Your task to perform on an android device: set the stopwatch Image 0: 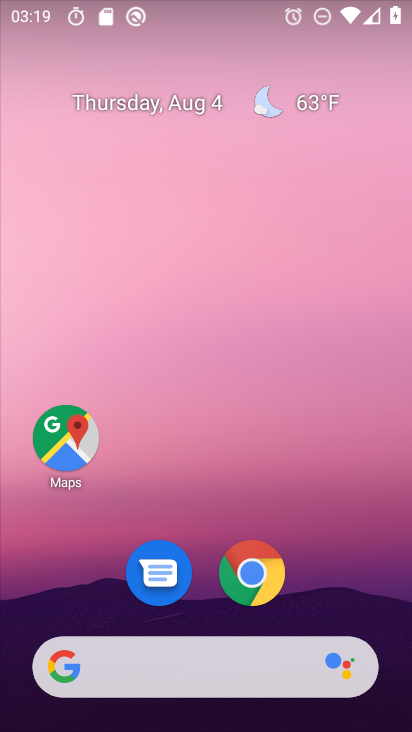
Step 0: drag from (328, 598) to (351, 75)
Your task to perform on an android device: set the stopwatch Image 1: 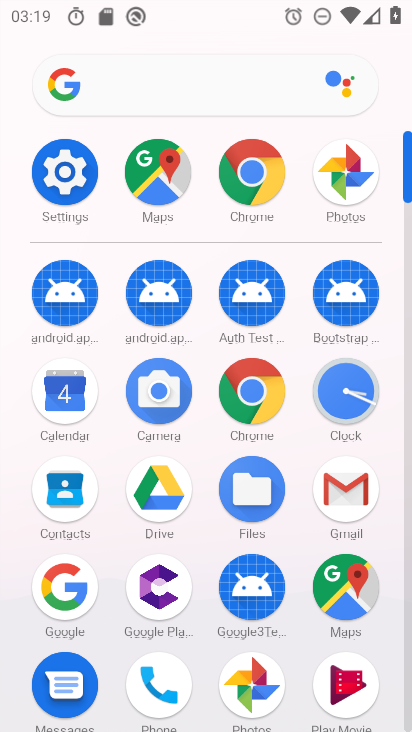
Step 1: click (358, 387)
Your task to perform on an android device: set the stopwatch Image 2: 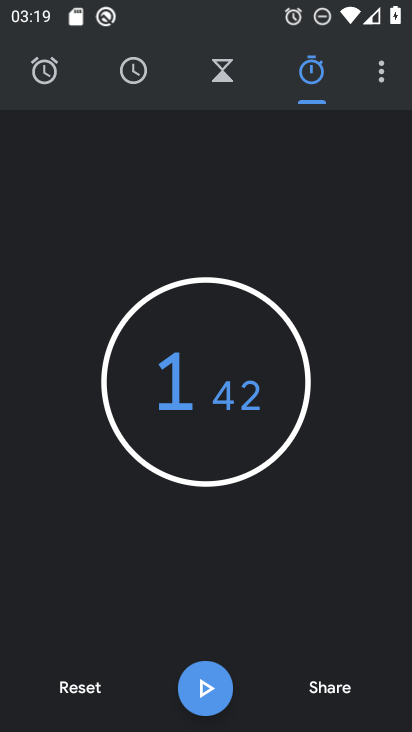
Step 2: click (305, 72)
Your task to perform on an android device: set the stopwatch Image 3: 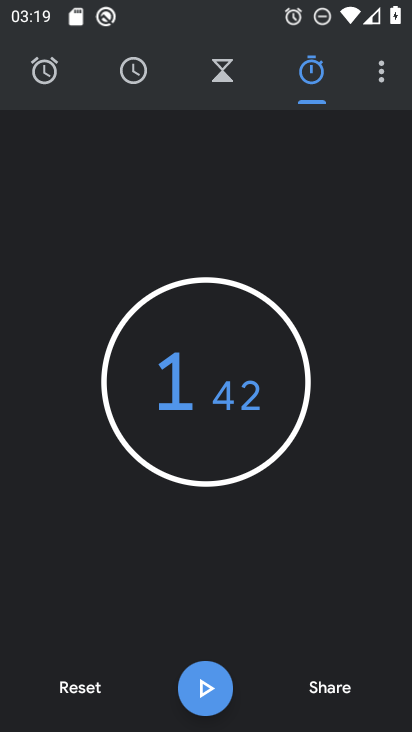
Step 3: click (305, 72)
Your task to perform on an android device: set the stopwatch Image 4: 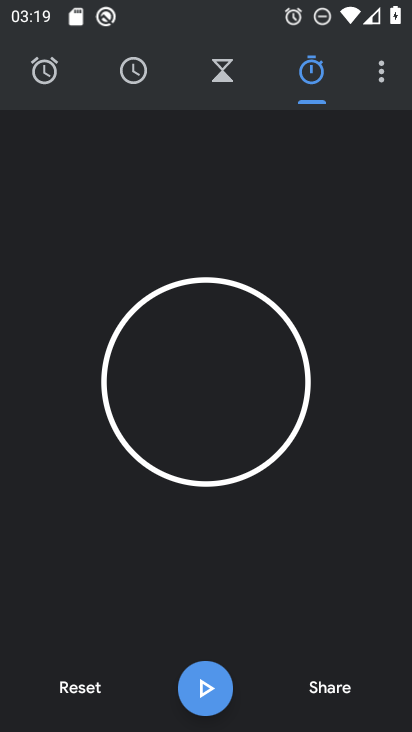
Step 4: task complete